Your task to perform on an android device: turn on wifi Image 0: 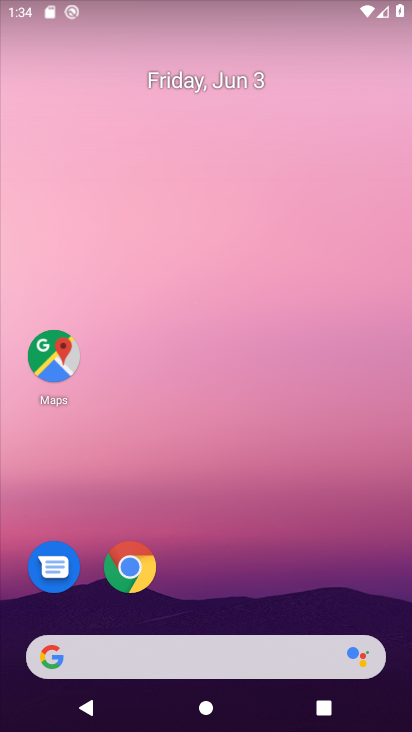
Step 0: drag from (267, 581) to (219, 178)
Your task to perform on an android device: turn on wifi Image 1: 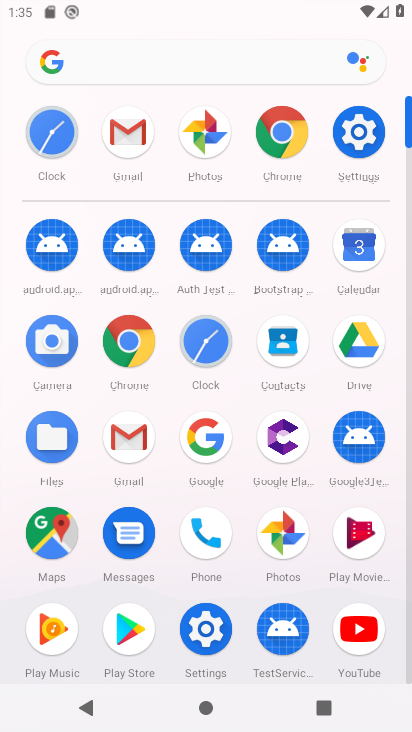
Step 1: click (341, 131)
Your task to perform on an android device: turn on wifi Image 2: 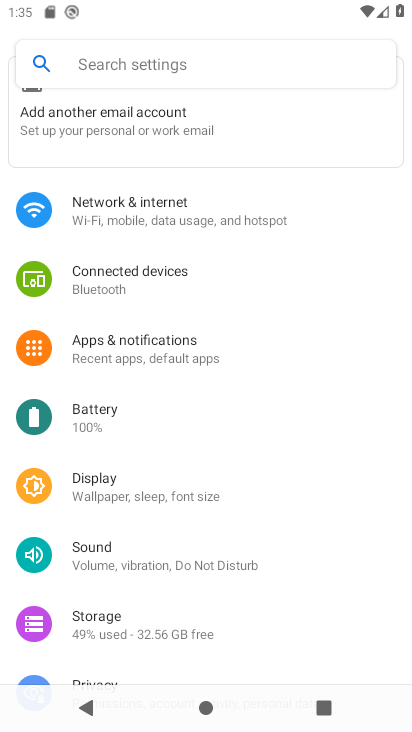
Step 2: click (150, 208)
Your task to perform on an android device: turn on wifi Image 3: 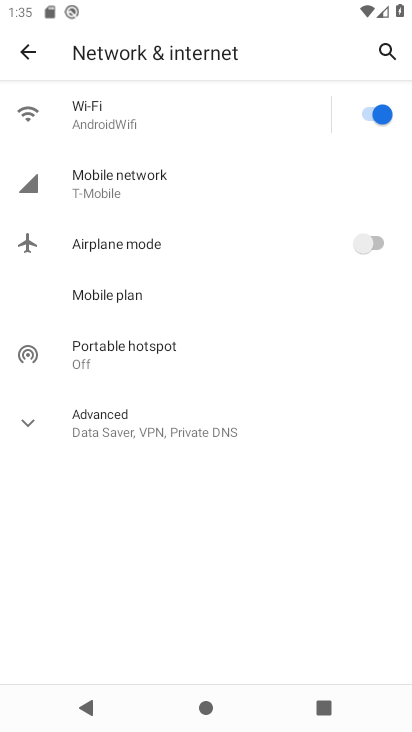
Step 3: click (379, 103)
Your task to perform on an android device: turn on wifi Image 4: 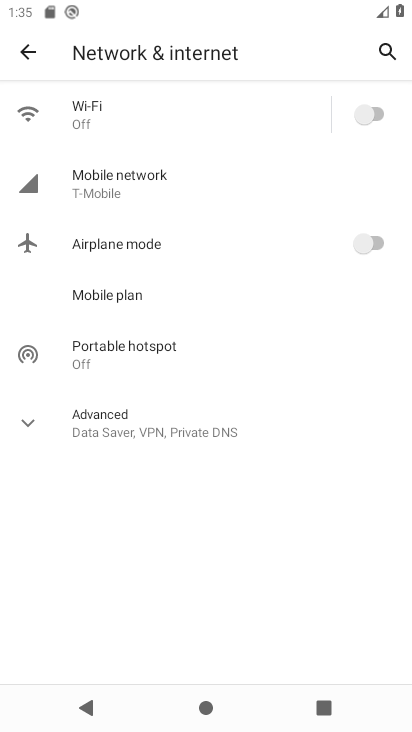
Step 4: click (379, 103)
Your task to perform on an android device: turn on wifi Image 5: 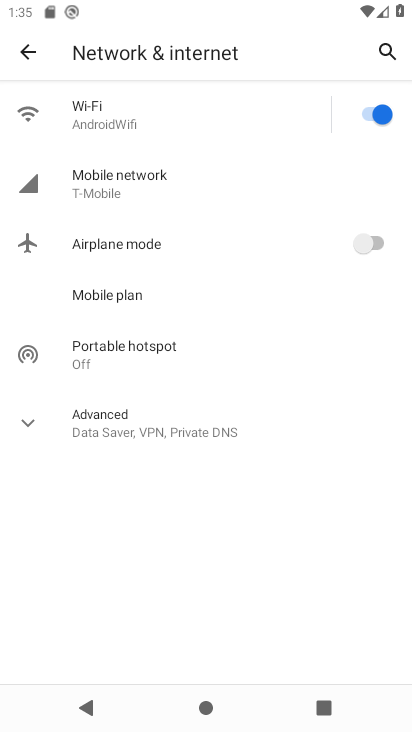
Step 5: task complete